Your task to perform on an android device: Show me productivity apps on the Play Store Image 0: 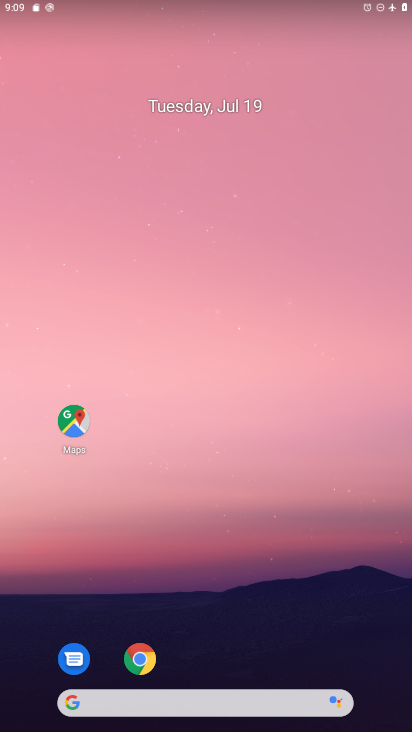
Step 0: drag from (272, 681) to (239, 162)
Your task to perform on an android device: Show me productivity apps on the Play Store Image 1: 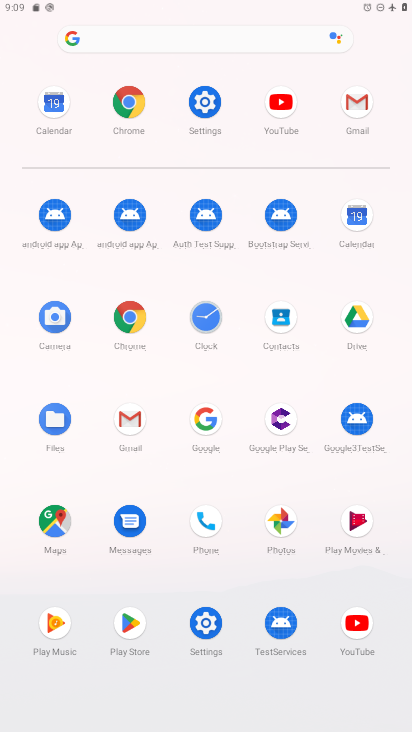
Step 1: click (131, 617)
Your task to perform on an android device: Show me productivity apps on the Play Store Image 2: 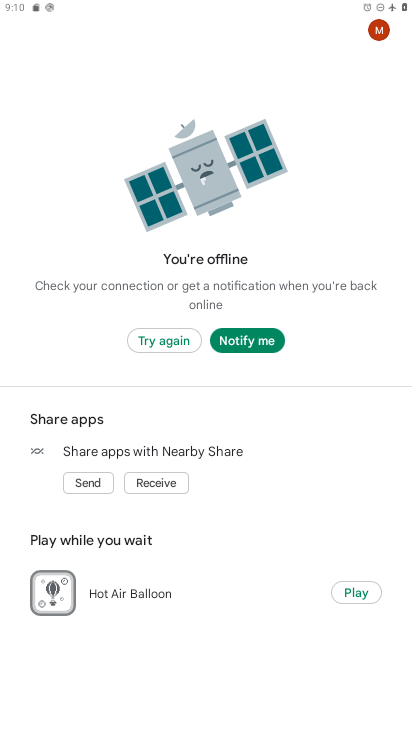
Step 2: click (179, 339)
Your task to perform on an android device: Show me productivity apps on the Play Store Image 3: 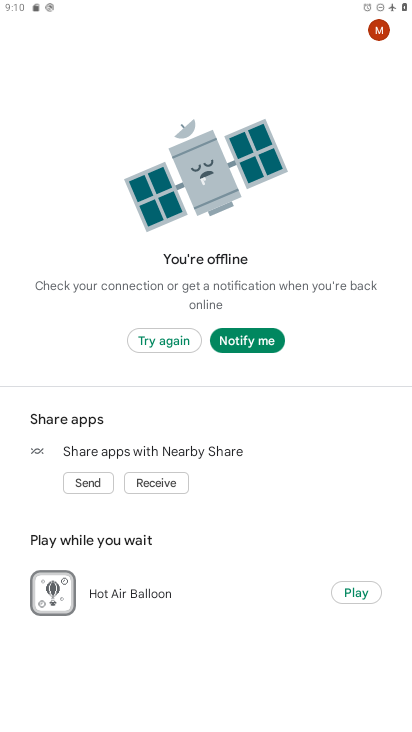
Step 3: task complete